Your task to perform on an android device: open the mobile data screen to see how much data has been used Image 0: 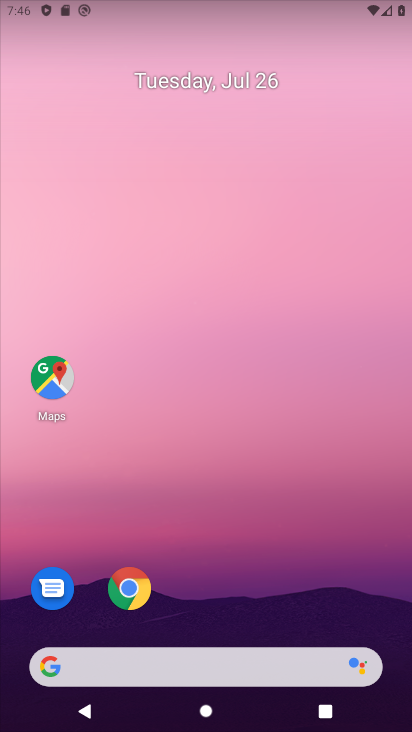
Step 0: drag from (204, 549) to (306, 28)
Your task to perform on an android device: open the mobile data screen to see how much data has been used Image 1: 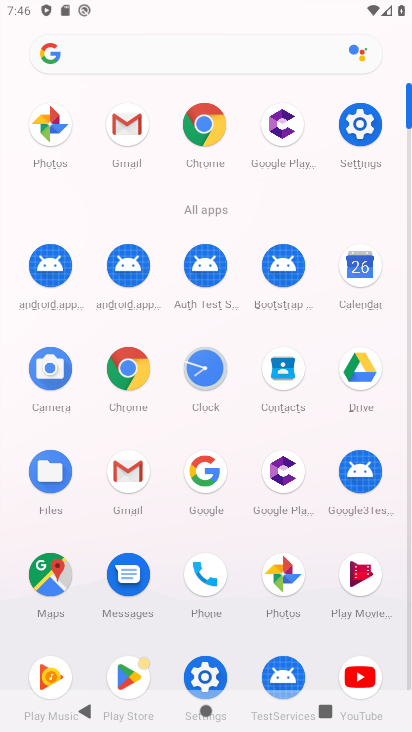
Step 1: click (345, 120)
Your task to perform on an android device: open the mobile data screen to see how much data has been used Image 2: 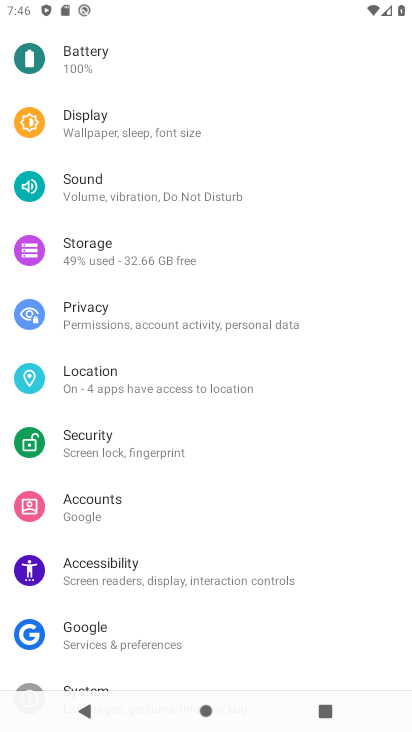
Step 2: drag from (148, 211) to (97, 488)
Your task to perform on an android device: open the mobile data screen to see how much data has been used Image 3: 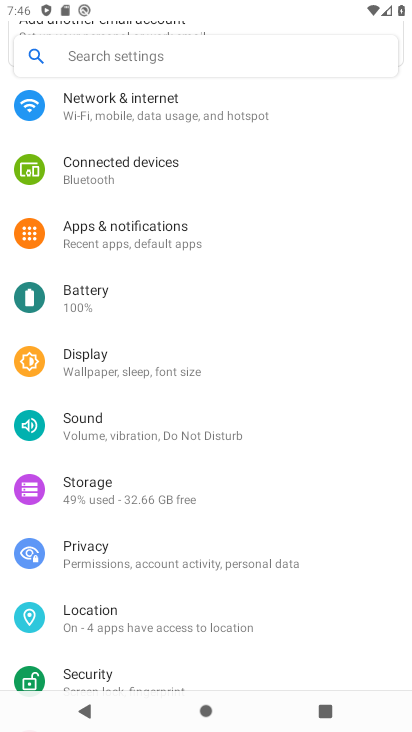
Step 3: drag from (180, 166) to (144, 544)
Your task to perform on an android device: open the mobile data screen to see how much data has been used Image 4: 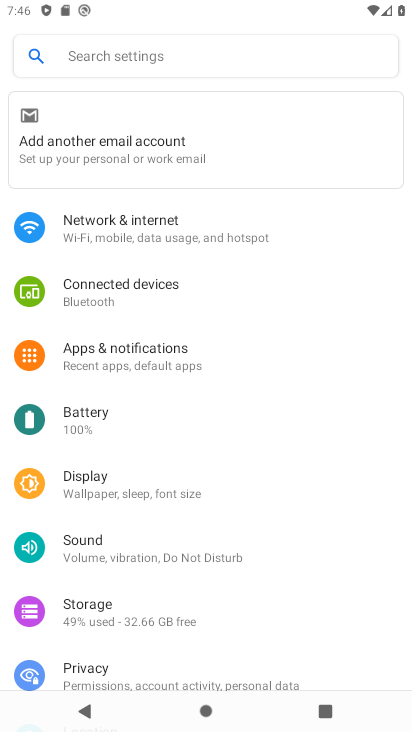
Step 4: click (182, 236)
Your task to perform on an android device: open the mobile data screen to see how much data has been used Image 5: 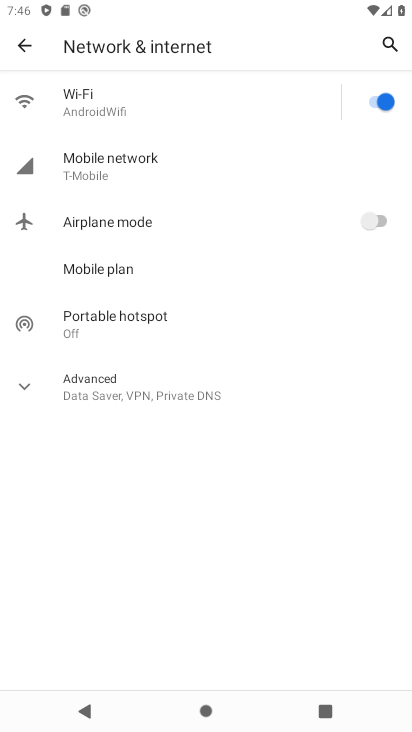
Step 5: click (156, 170)
Your task to perform on an android device: open the mobile data screen to see how much data has been used Image 6: 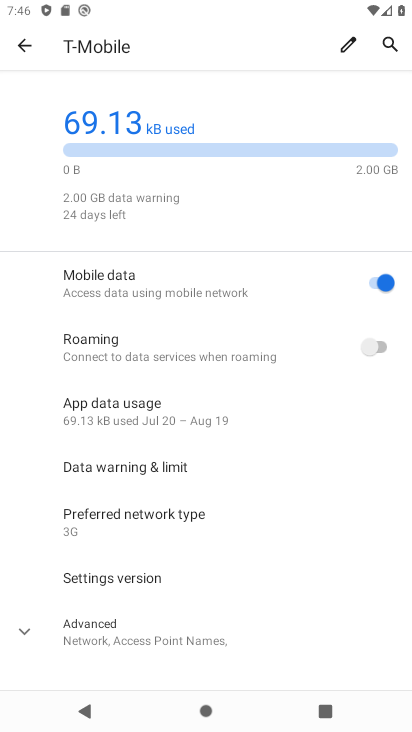
Step 6: task complete